Your task to perform on an android device: toggle priority inbox in the gmail app Image 0: 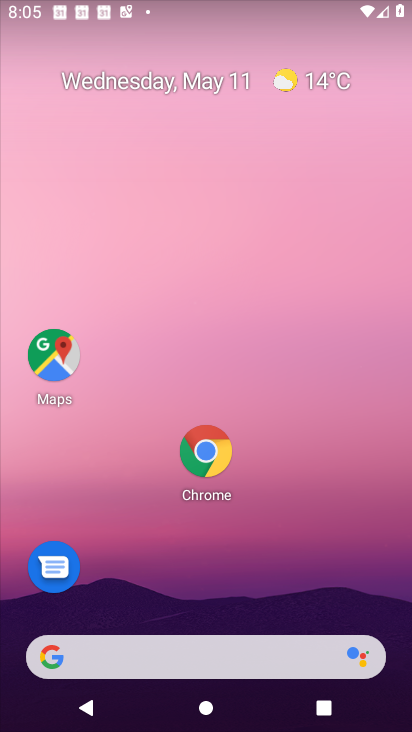
Step 0: drag from (183, 650) to (281, 180)
Your task to perform on an android device: toggle priority inbox in the gmail app Image 1: 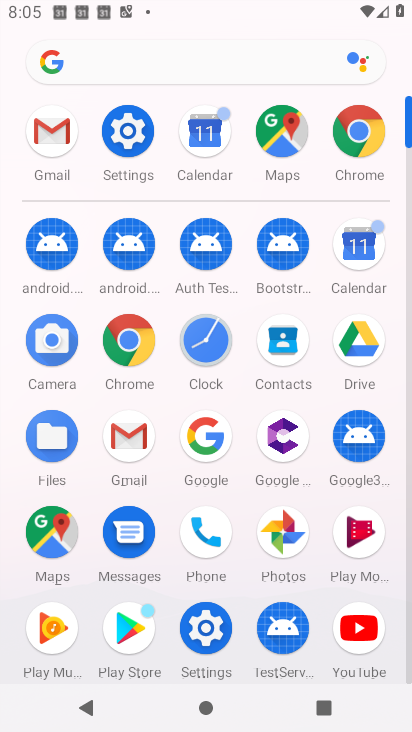
Step 1: click (133, 442)
Your task to perform on an android device: toggle priority inbox in the gmail app Image 2: 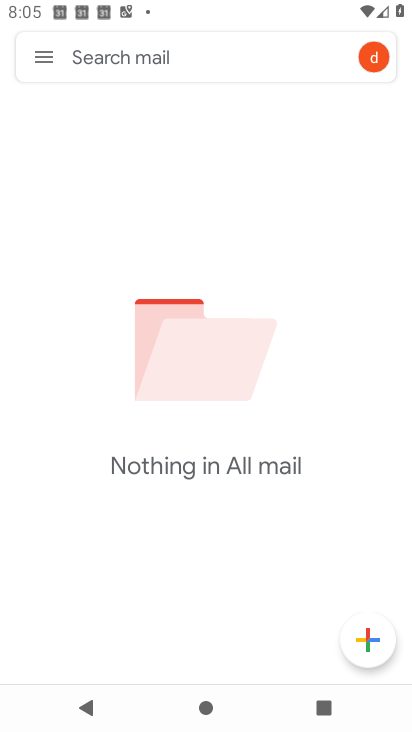
Step 2: click (50, 53)
Your task to perform on an android device: toggle priority inbox in the gmail app Image 3: 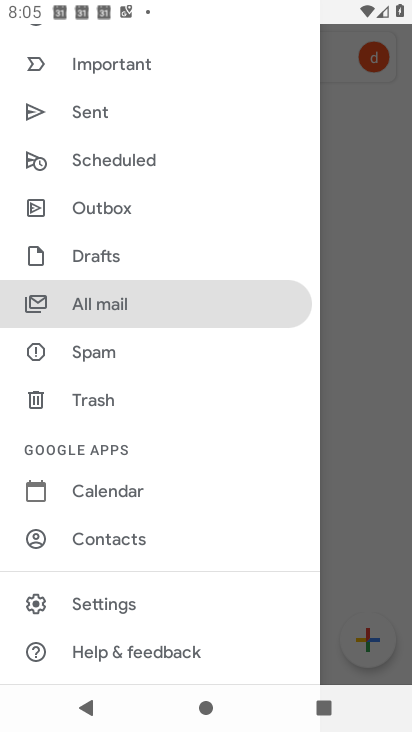
Step 3: click (125, 605)
Your task to perform on an android device: toggle priority inbox in the gmail app Image 4: 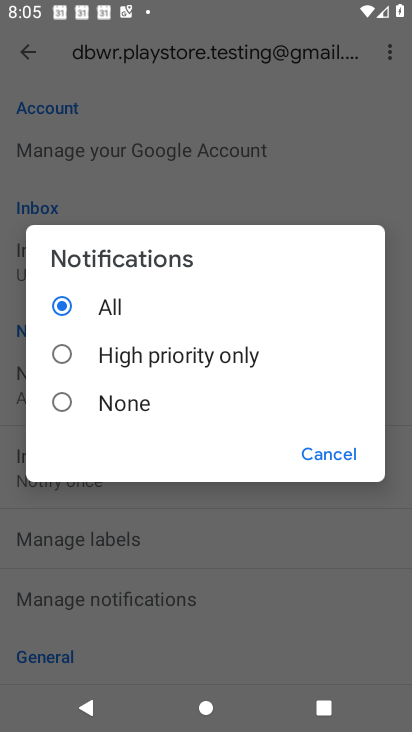
Step 4: click (298, 465)
Your task to perform on an android device: toggle priority inbox in the gmail app Image 5: 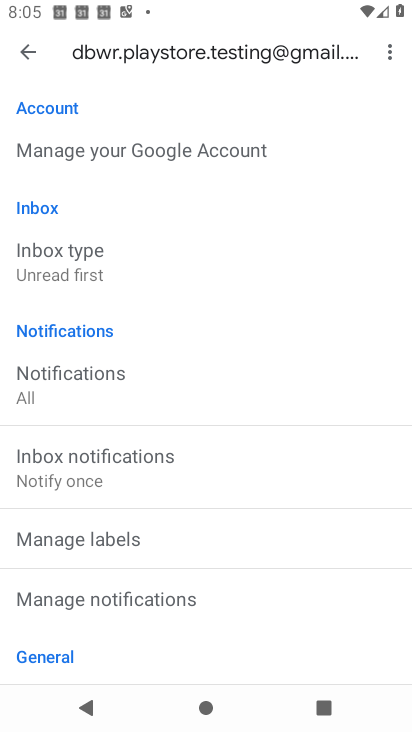
Step 5: click (74, 274)
Your task to perform on an android device: toggle priority inbox in the gmail app Image 6: 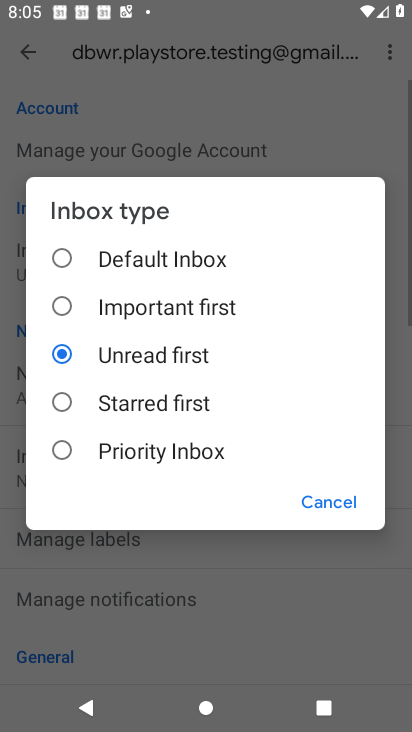
Step 6: click (60, 460)
Your task to perform on an android device: toggle priority inbox in the gmail app Image 7: 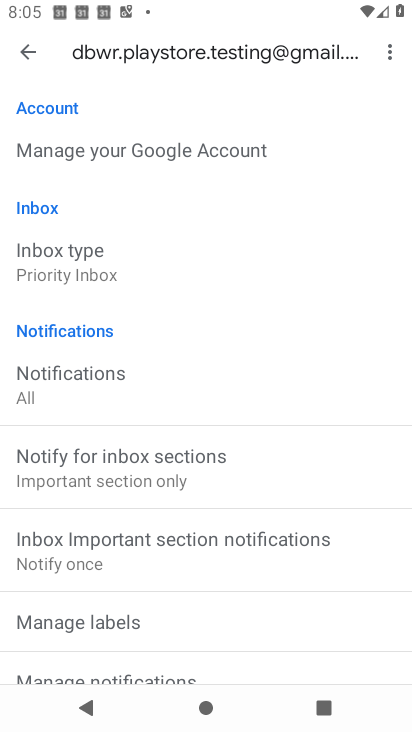
Step 7: task complete